Your task to perform on an android device: Open the map Image 0: 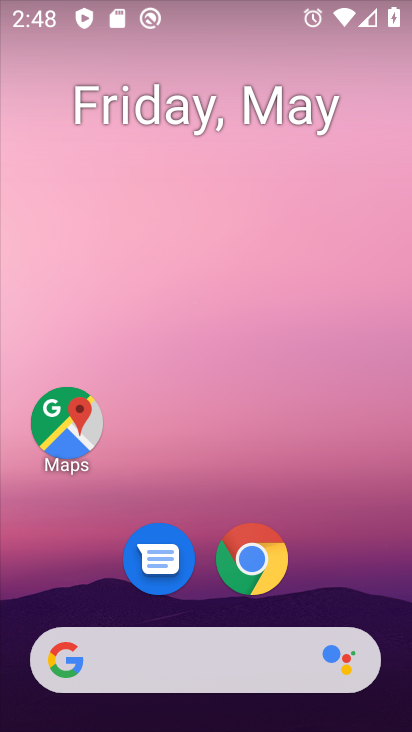
Step 0: drag from (356, 622) to (336, 466)
Your task to perform on an android device: Open the map Image 1: 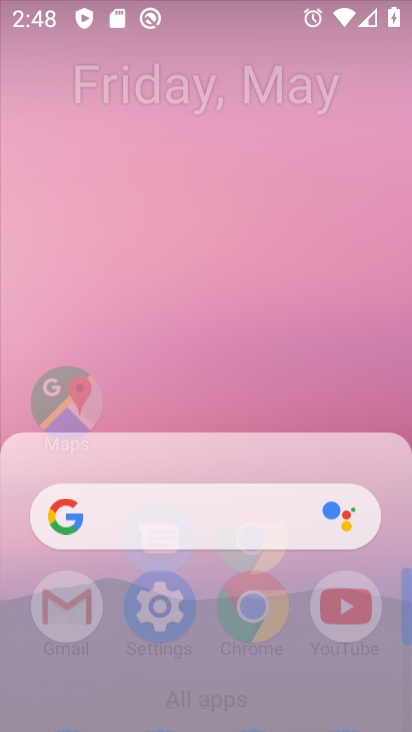
Step 1: click (304, 295)
Your task to perform on an android device: Open the map Image 2: 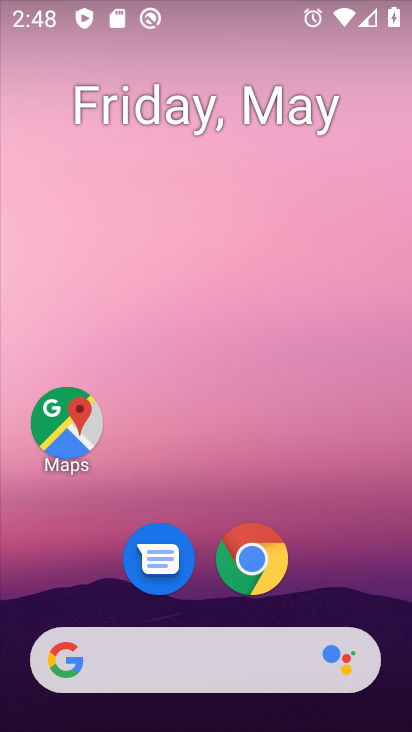
Step 2: click (48, 419)
Your task to perform on an android device: Open the map Image 3: 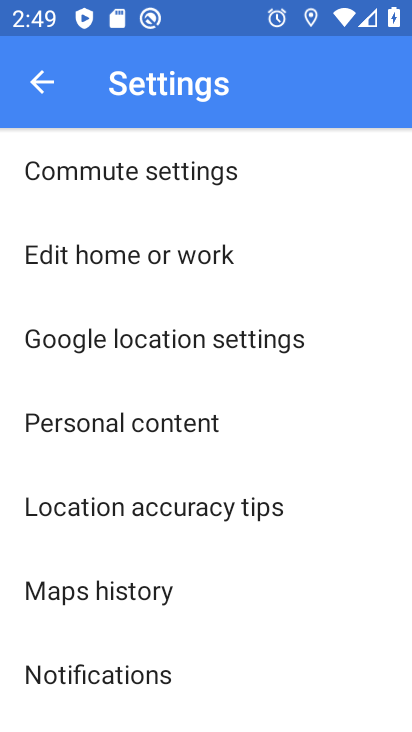
Step 3: click (56, 89)
Your task to perform on an android device: Open the map Image 4: 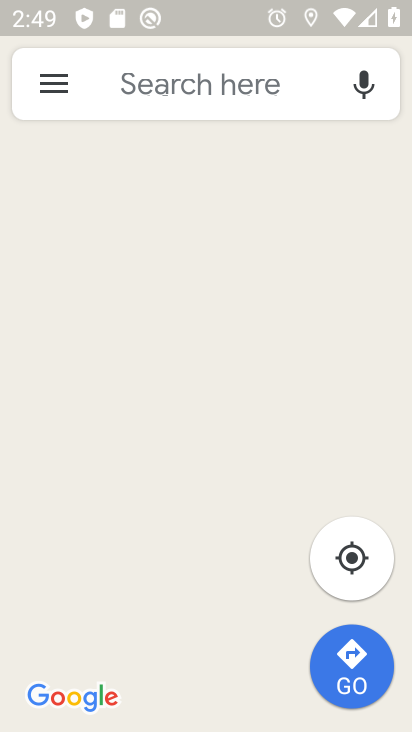
Step 4: task complete